Your task to perform on an android device: toggle priority inbox in the gmail app Image 0: 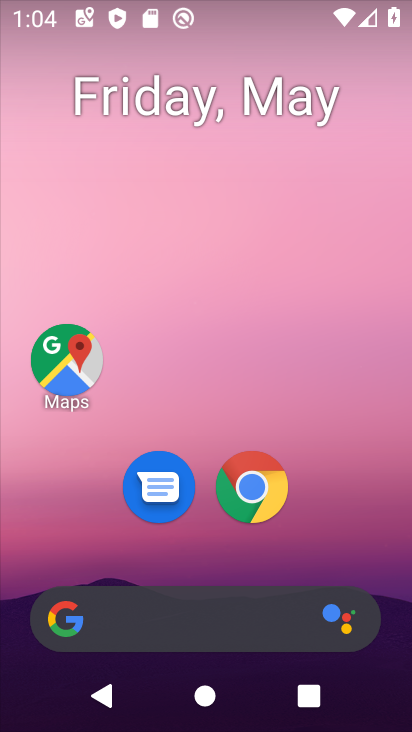
Step 0: task complete